Your task to perform on an android device: turn on notifications settings in the gmail app Image 0: 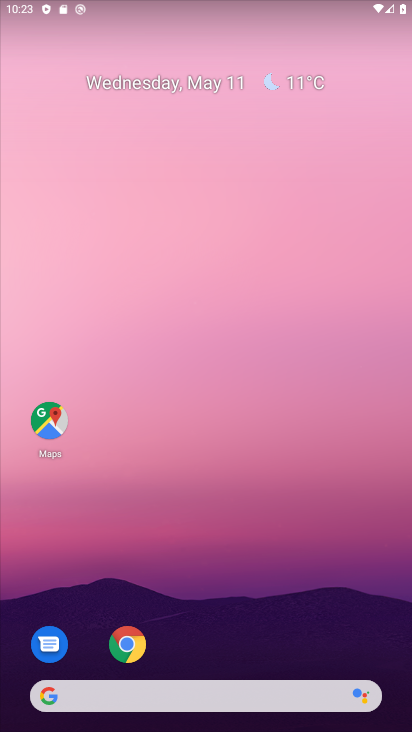
Step 0: drag from (335, 599) to (364, 4)
Your task to perform on an android device: turn on notifications settings in the gmail app Image 1: 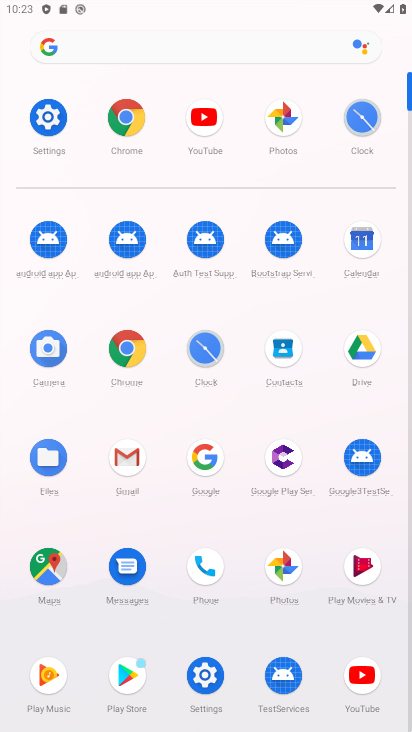
Step 1: click (133, 467)
Your task to perform on an android device: turn on notifications settings in the gmail app Image 2: 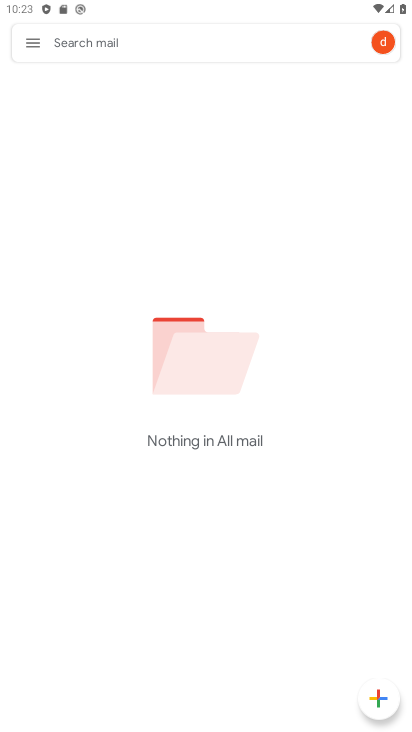
Step 2: click (30, 44)
Your task to perform on an android device: turn on notifications settings in the gmail app Image 3: 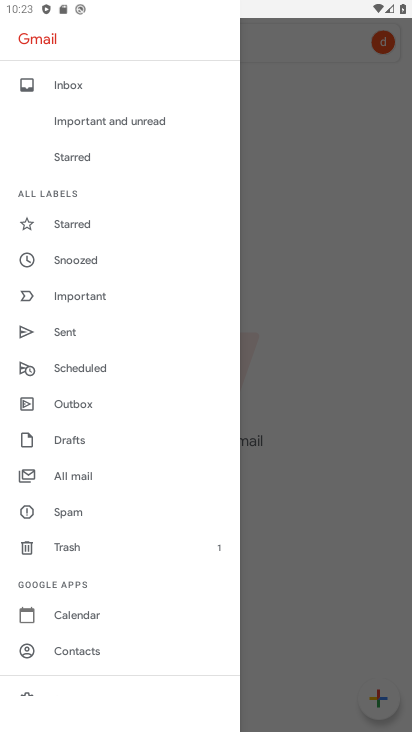
Step 3: drag from (165, 577) to (173, 338)
Your task to perform on an android device: turn on notifications settings in the gmail app Image 4: 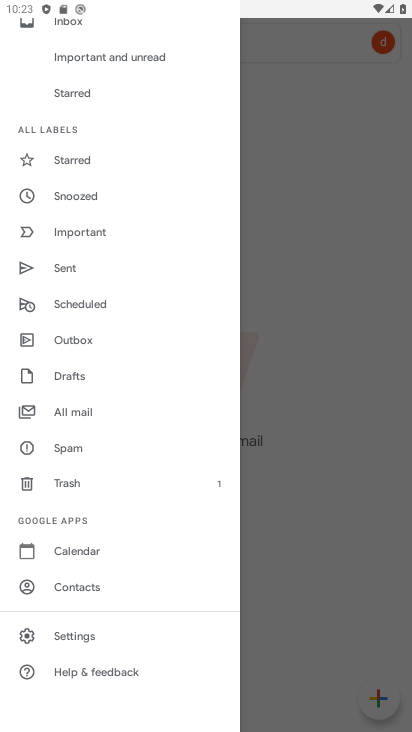
Step 4: click (62, 632)
Your task to perform on an android device: turn on notifications settings in the gmail app Image 5: 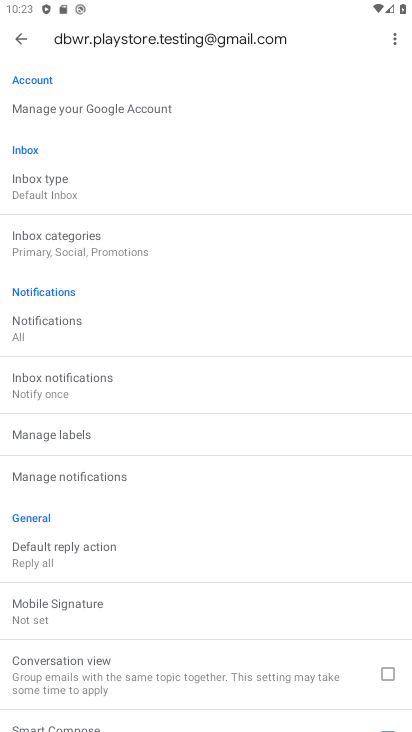
Step 5: click (16, 38)
Your task to perform on an android device: turn on notifications settings in the gmail app Image 6: 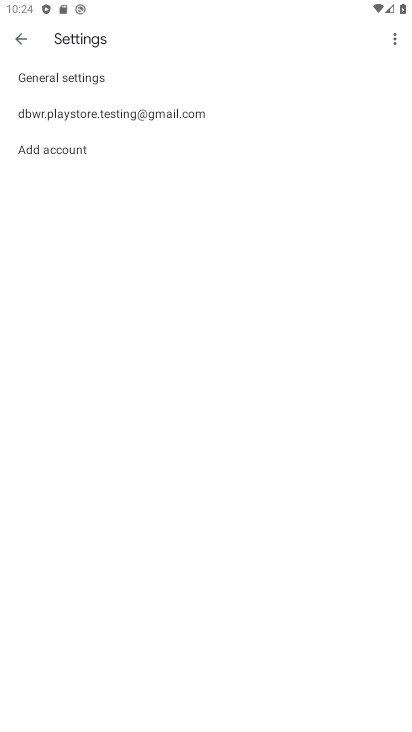
Step 6: click (55, 82)
Your task to perform on an android device: turn on notifications settings in the gmail app Image 7: 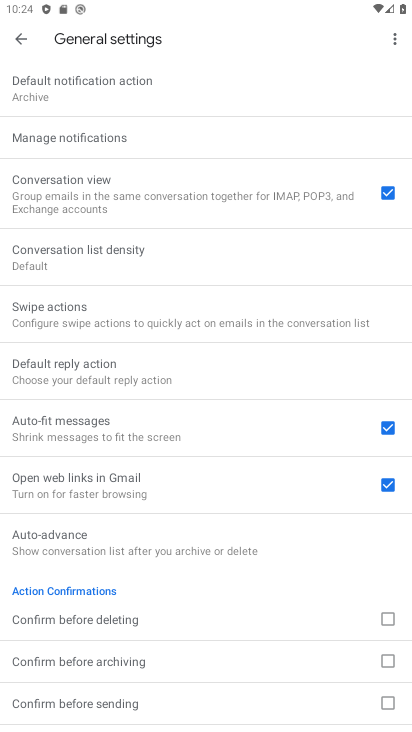
Step 7: click (60, 135)
Your task to perform on an android device: turn on notifications settings in the gmail app Image 8: 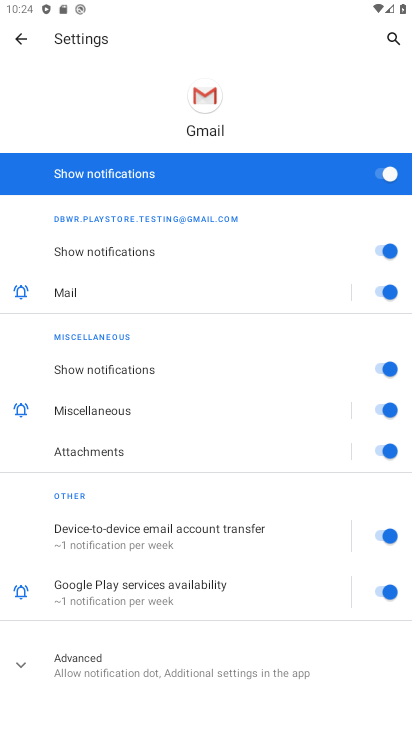
Step 8: task complete